Your task to perform on an android device: Go to Yahoo.com Image 0: 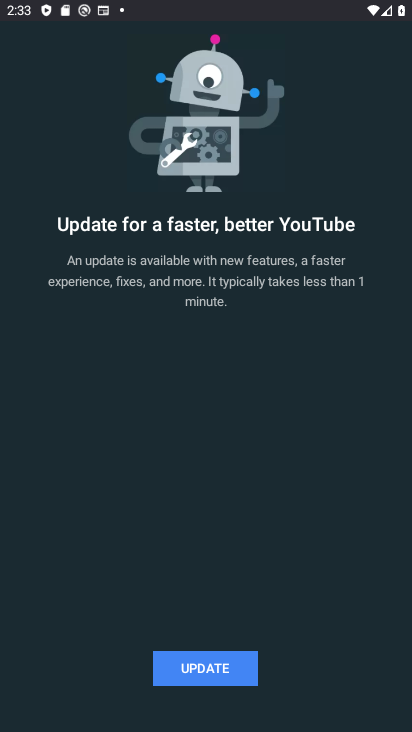
Step 0: press home button
Your task to perform on an android device: Go to Yahoo.com Image 1: 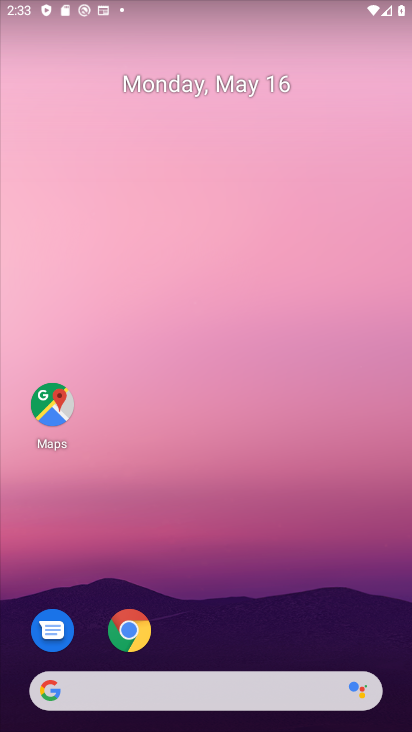
Step 1: click (130, 624)
Your task to perform on an android device: Go to Yahoo.com Image 2: 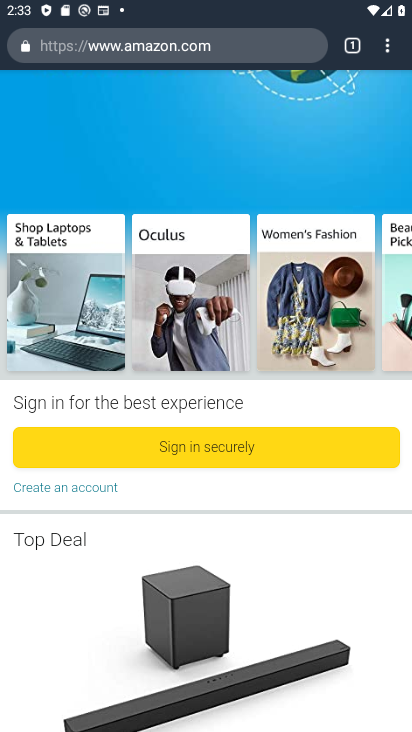
Step 2: click (352, 41)
Your task to perform on an android device: Go to Yahoo.com Image 3: 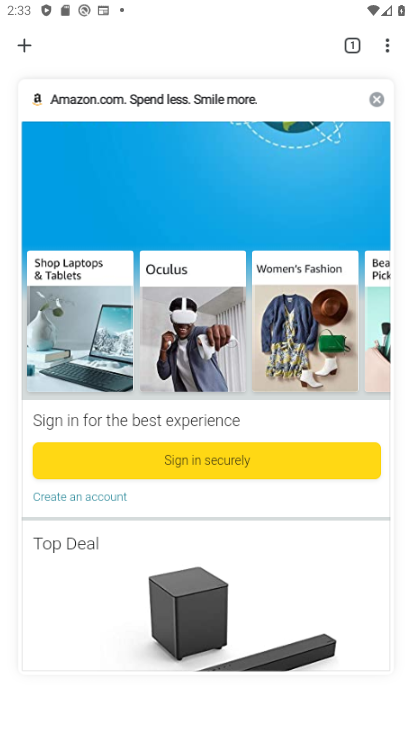
Step 3: click (378, 94)
Your task to perform on an android device: Go to Yahoo.com Image 4: 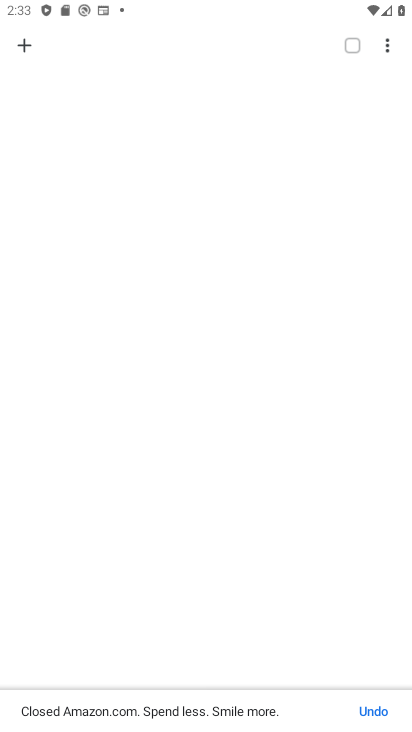
Step 4: click (25, 46)
Your task to perform on an android device: Go to Yahoo.com Image 5: 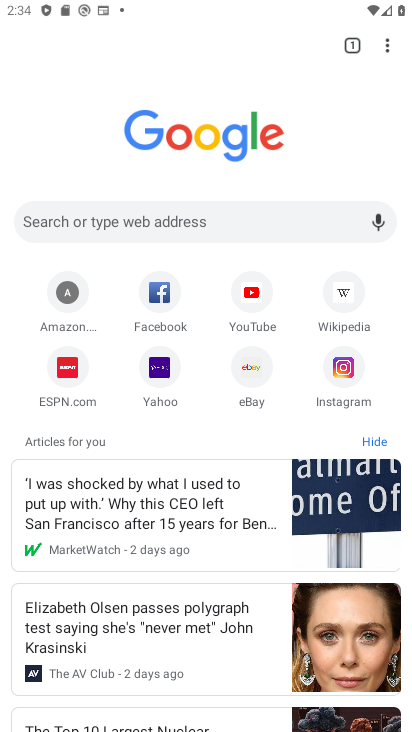
Step 5: click (163, 366)
Your task to perform on an android device: Go to Yahoo.com Image 6: 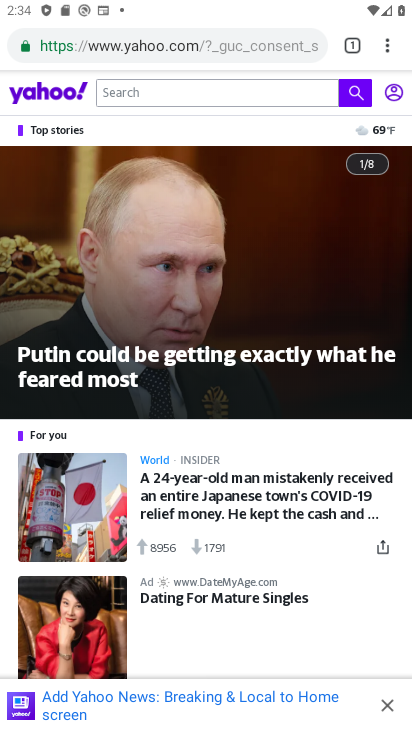
Step 6: task complete